Your task to perform on an android device: turn off priority inbox in the gmail app Image 0: 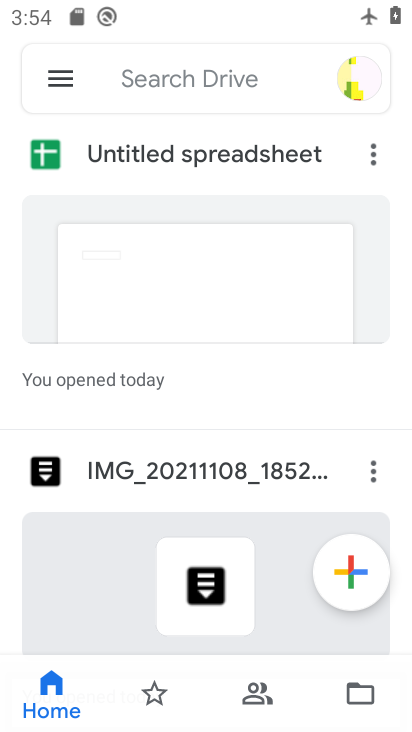
Step 0: press home button
Your task to perform on an android device: turn off priority inbox in the gmail app Image 1: 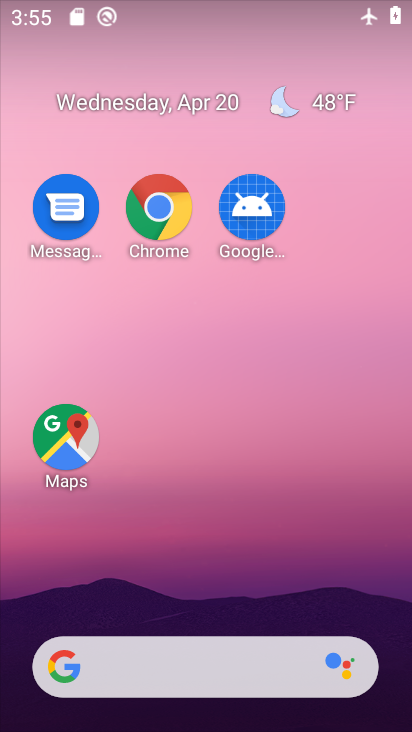
Step 1: drag from (244, 593) to (229, 115)
Your task to perform on an android device: turn off priority inbox in the gmail app Image 2: 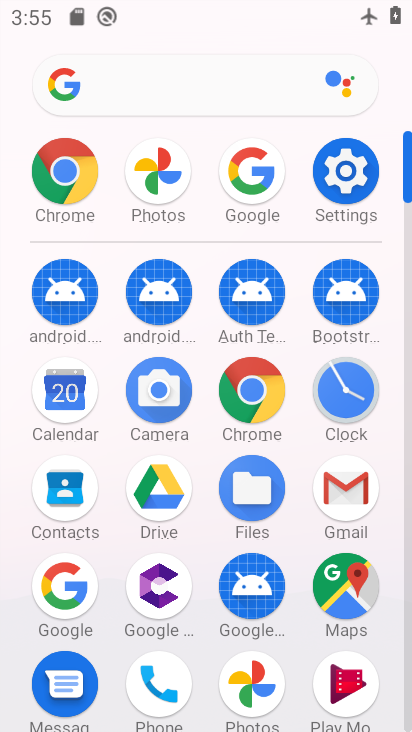
Step 2: click (357, 503)
Your task to perform on an android device: turn off priority inbox in the gmail app Image 3: 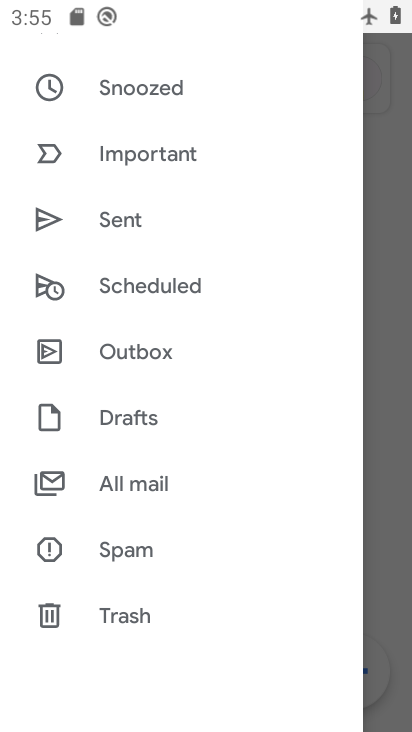
Step 3: drag from (178, 529) to (225, 174)
Your task to perform on an android device: turn off priority inbox in the gmail app Image 4: 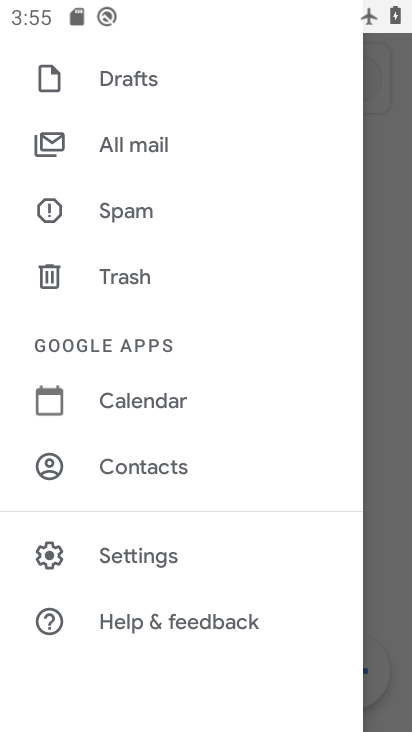
Step 4: click (182, 566)
Your task to perform on an android device: turn off priority inbox in the gmail app Image 5: 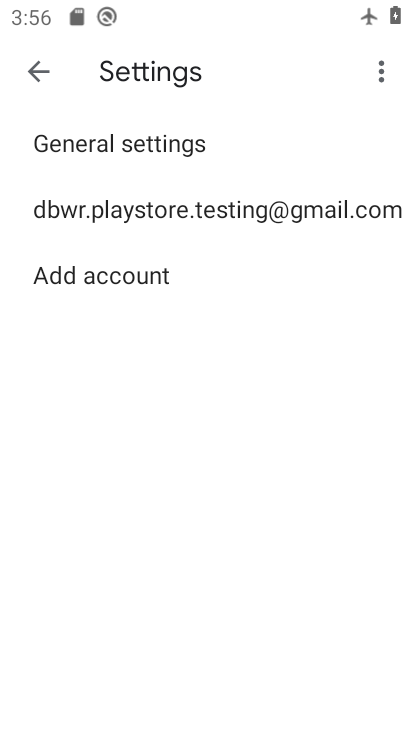
Step 5: click (160, 214)
Your task to perform on an android device: turn off priority inbox in the gmail app Image 6: 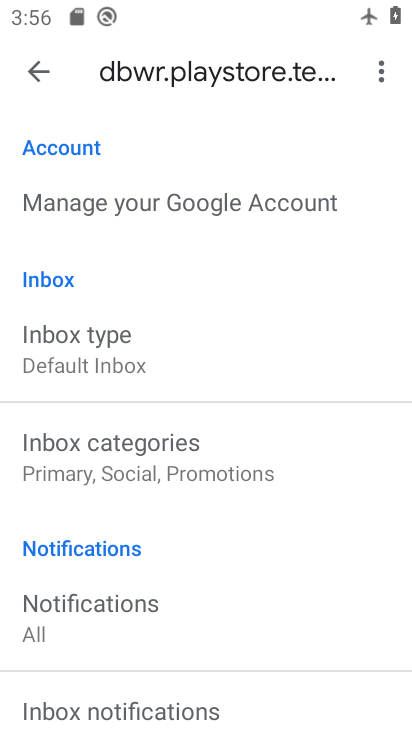
Step 6: click (200, 355)
Your task to perform on an android device: turn off priority inbox in the gmail app Image 7: 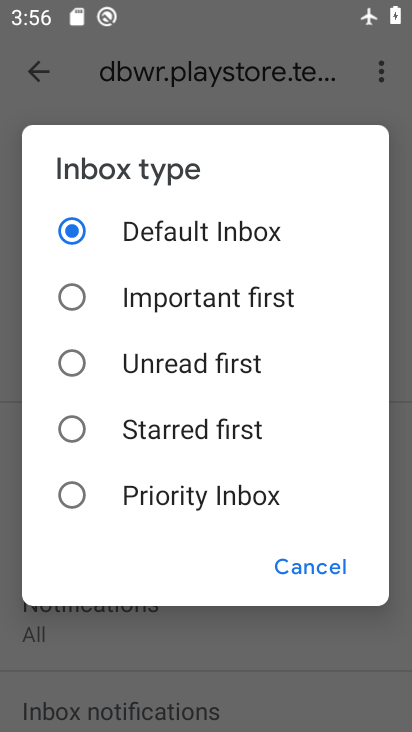
Step 7: task complete